Your task to perform on an android device: change text size in settings app Image 0: 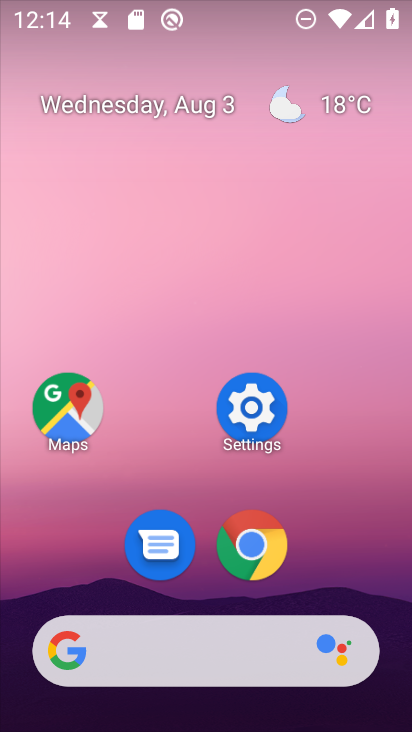
Step 0: click (263, 409)
Your task to perform on an android device: change text size in settings app Image 1: 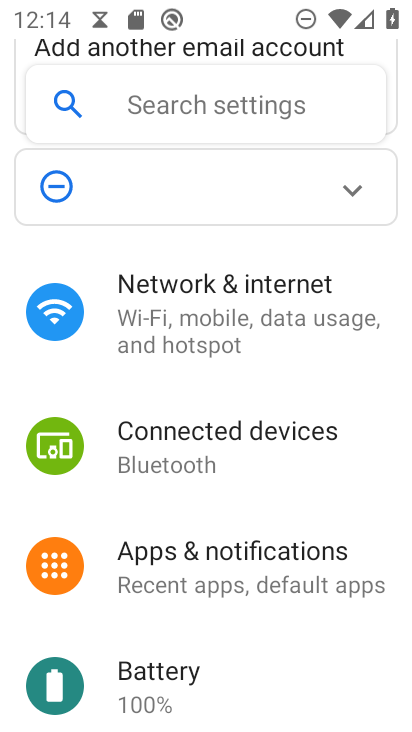
Step 1: drag from (224, 622) to (279, 294)
Your task to perform on an android device: change text size in settings app Image 2: 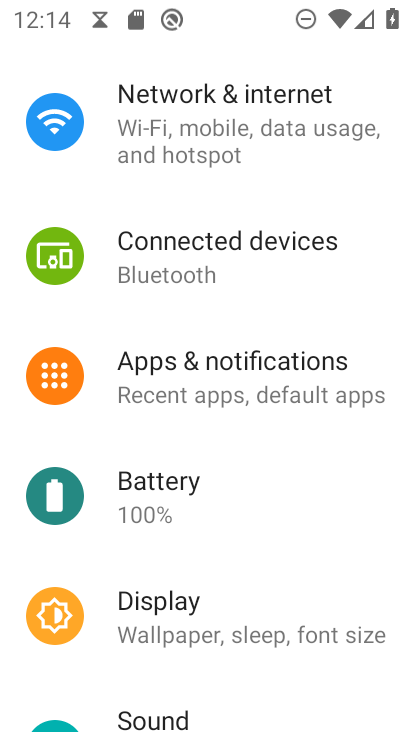
Step 2: click (199, 626)
Your task to perform on an android device: change text size in settings app Image 3: 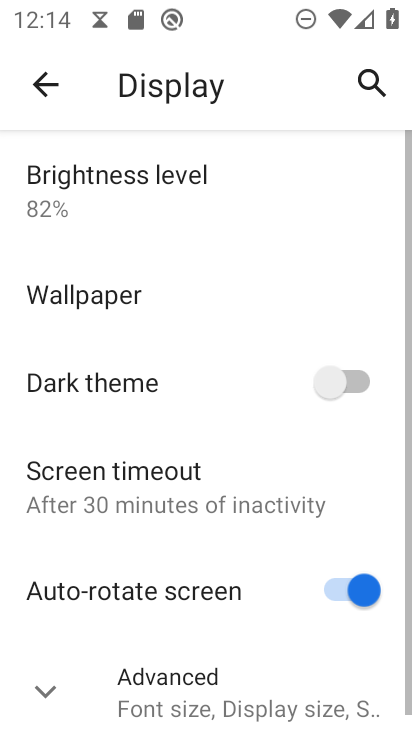
Step 3: drag from (199, 626) to (288, 183)
Your task to perform on an android device: change text size in settings app Image 4: 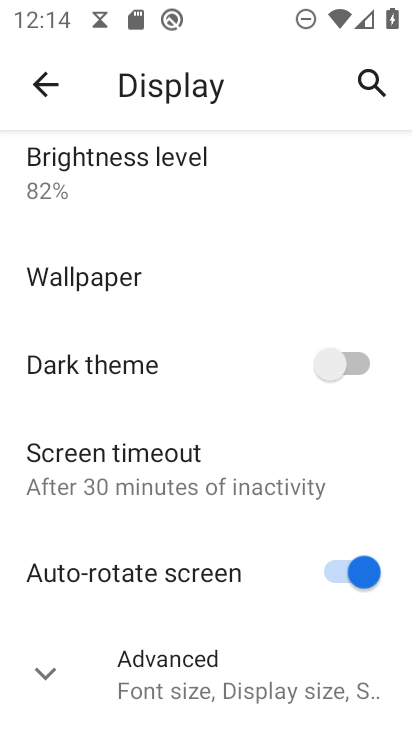
Step 4: click (127, 671)
Your task to perform on an android device: change text size in settings app Image 5: 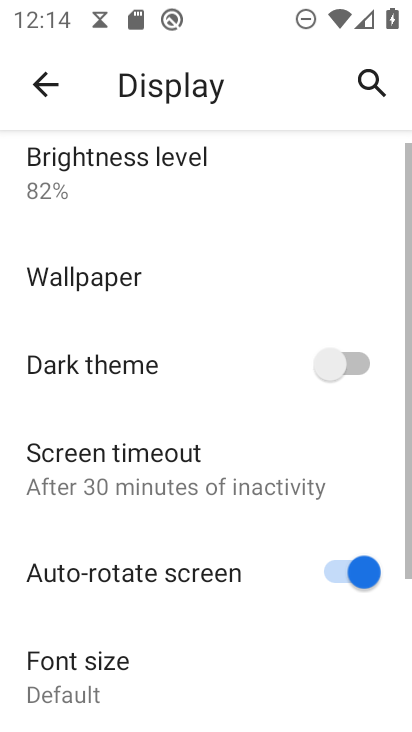
Step 5: drag from (189, 635) to (274, 278)
Your task to perform on an android device: change text size in settings app Image 6: 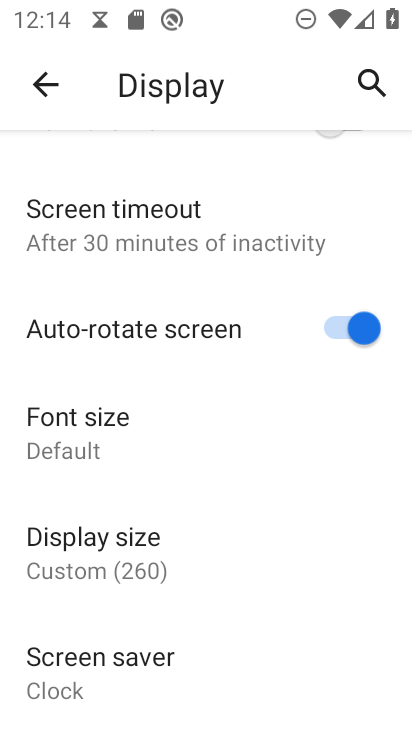
Step 6: click (72, 450)
Your task to perform on an android device: change text size in settings app Image 7: 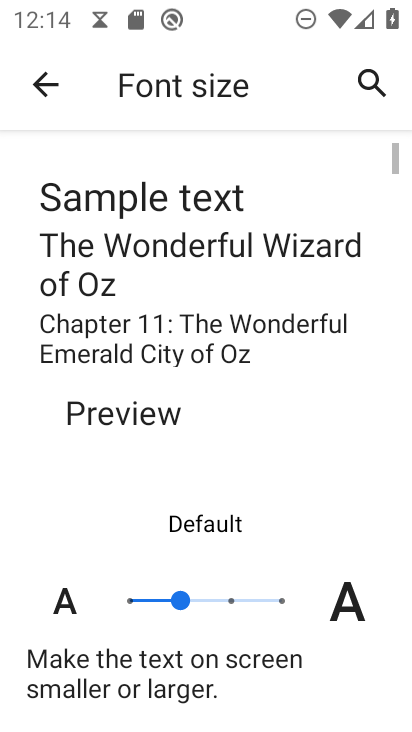
Step 7: click (126, 602)
Your task to perform on an android device: change text size in settings app Image 8: 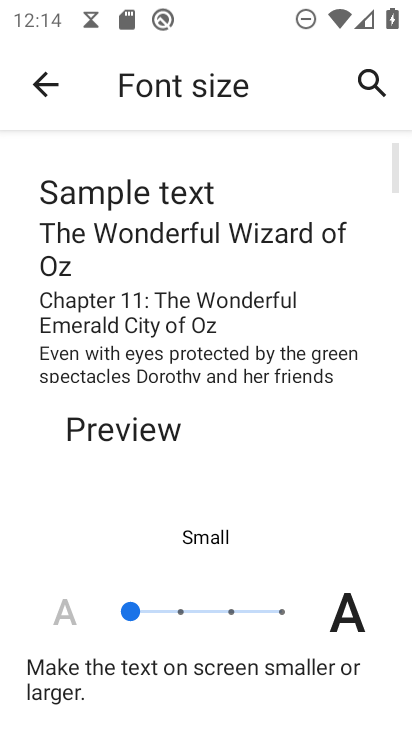
Step 8: task complete